Your task to perform on an android device: Check the news Image 0: 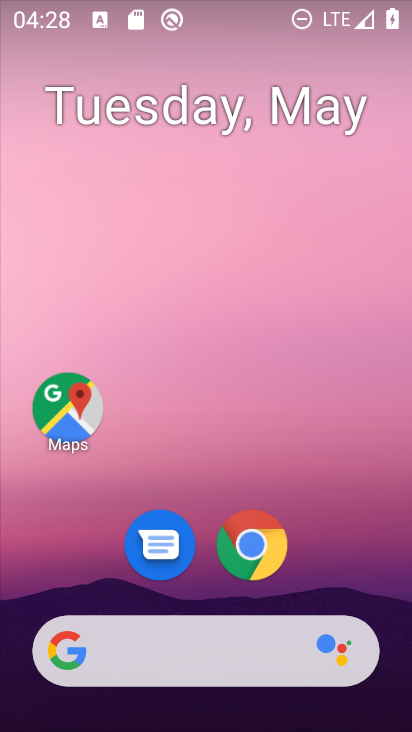
Step 0: drag from (8, 279) to (355, 301)
Your task to perform on an android device: Check the news Image 1: 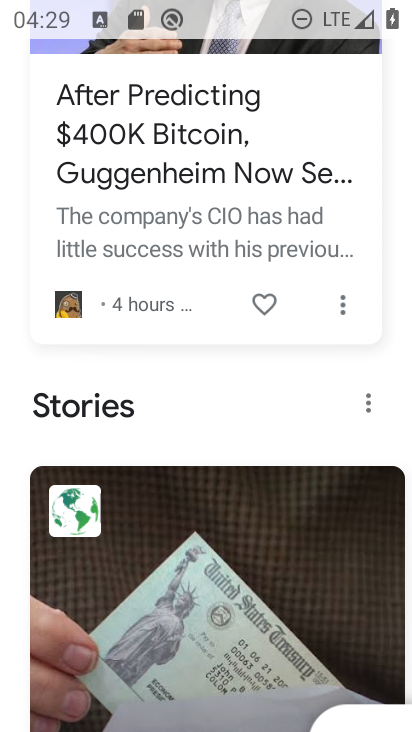
Step 1: task complete